Your task to perform on an android device: turn vacation reply on in the gmail app Image 0: 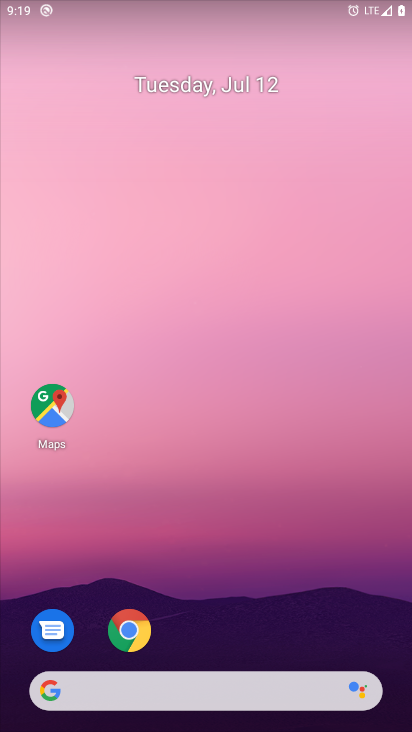
Step 0: press home button
Your task to perform on an android device: turn vacation reply on in the gmail app Image 1: 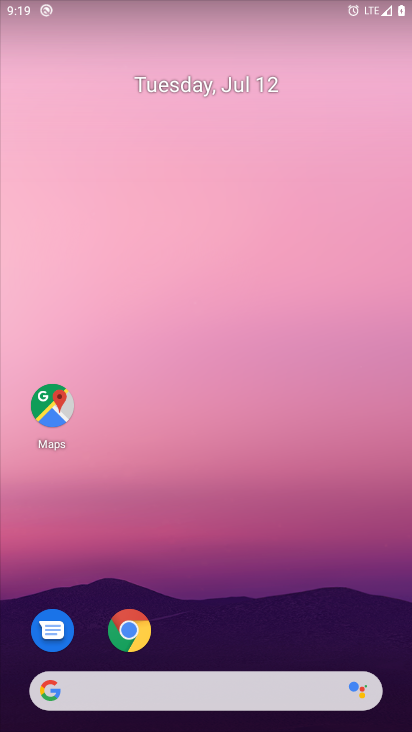
Step 1: drag from (329, 622) to (256, 90)
Your task to perform on an android device: turn vacation reply on in the gmail app Image 2: 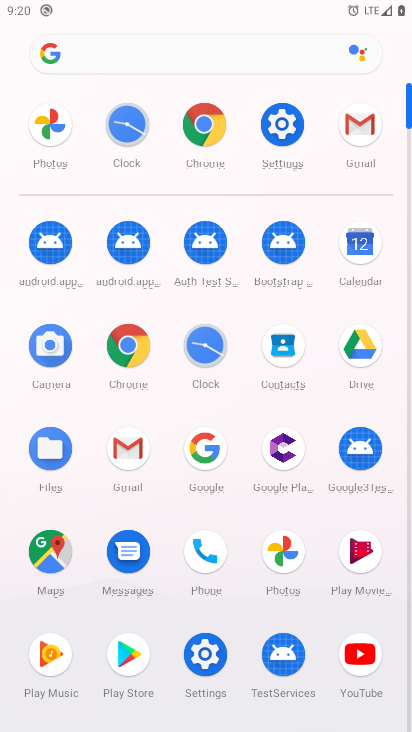
Step 2: click (361, 124)
Your task to perform on an android device: turn vacation reply on in the gmail app Image 3: 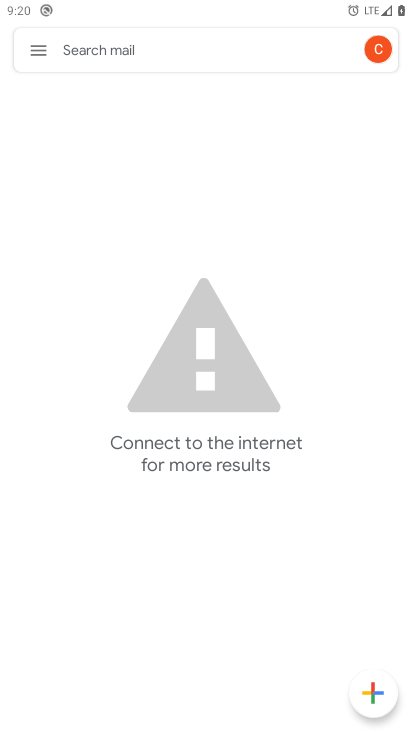
Step 3: click (34, 50)
Your task to perform on an android device: turn vacation reply on in the gmail app Image 4: 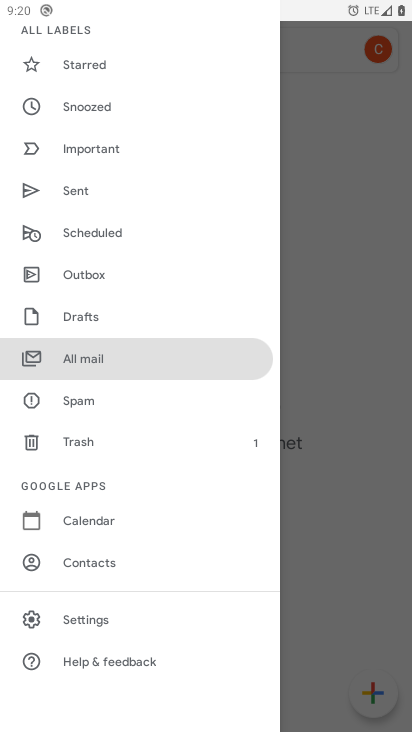
Step 4: click (79, 624)
Your task to perform on an android device: turn vacation reply on in the gmail app Image 5: 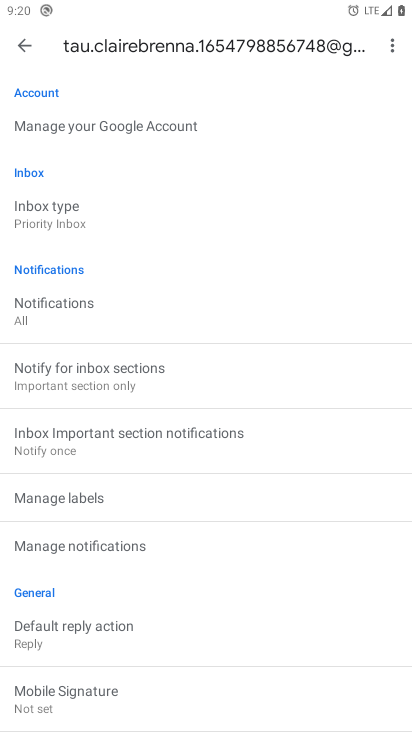
Step 5: drag from (166, 597) to (120, 345)
Your task to perform on an android device: turn vacation reply on in the gmail app Image 6: 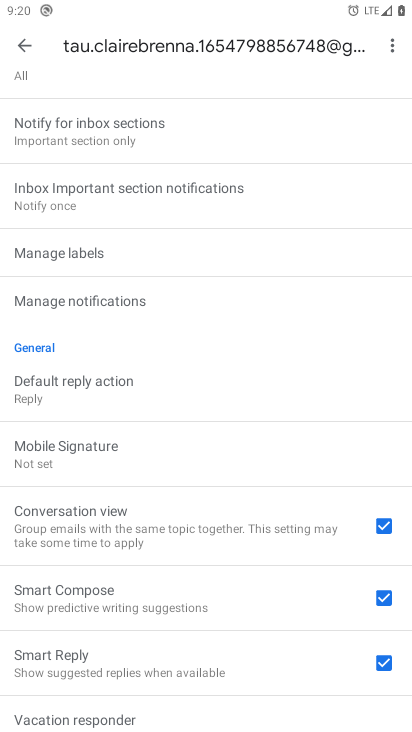
Step 6: drag from (206, 703) to (191, 499)
Your task to perform on an android device: turn vacation reply on in the gmail app Image 7: 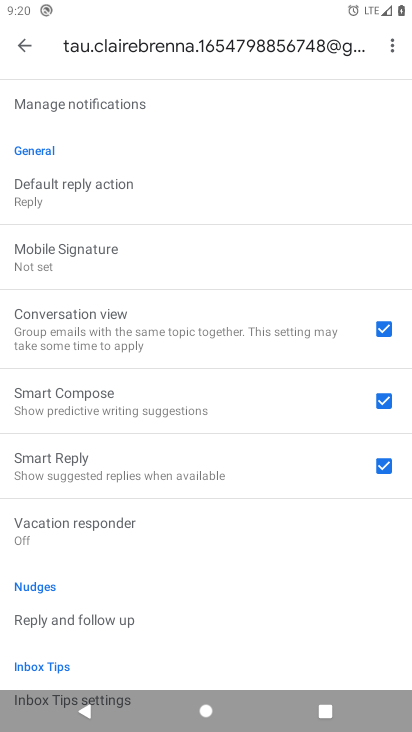
Step 7: click (71, 528)
Your task to perform on an android device: turn vacation reply on in the gmail app Image 8: 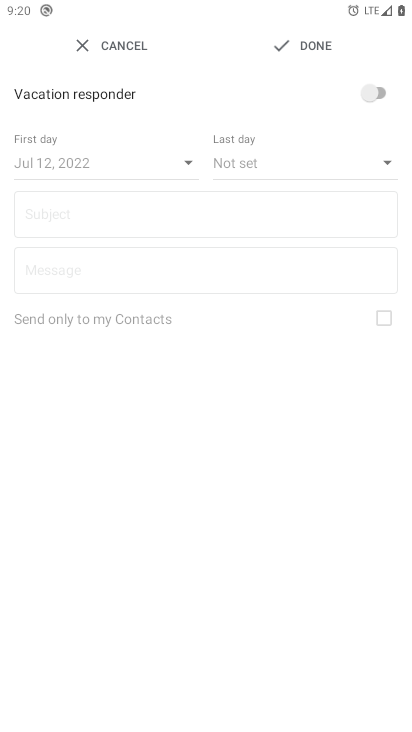
Step 8: click (378, 92)
Your task to perform on an android device: turn vacation reply on in the gmail app Image 9: 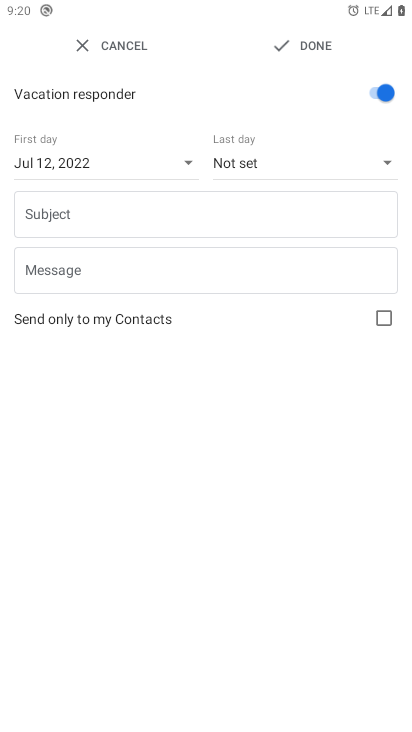
Step 9: click (316, 48)
Your task to perform on an android device: turn vacation reply on in the gmail app Image 10: 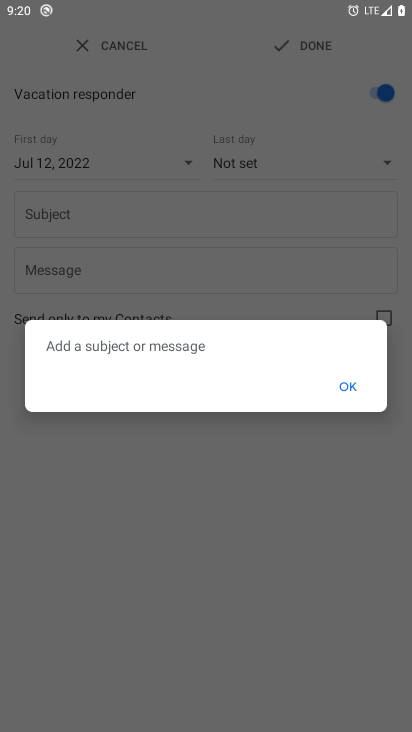
Step 10: click (347, 389)
Your task to perform on an android device: turn vacation reply on in the gmail app Image 11: 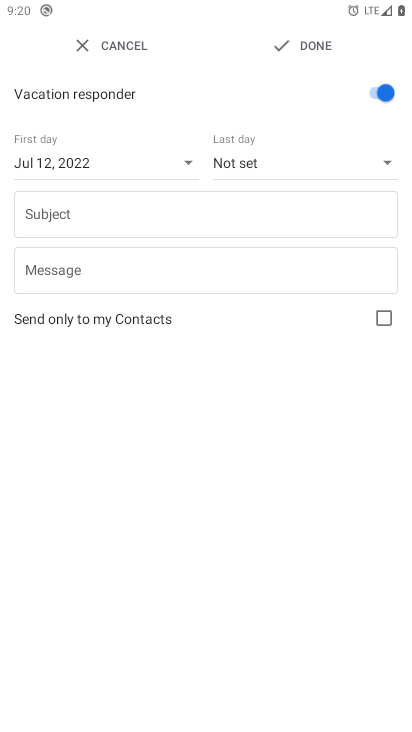
Step 11: task complete